Your task to perform on an android device: all mails in gmail Image 0: 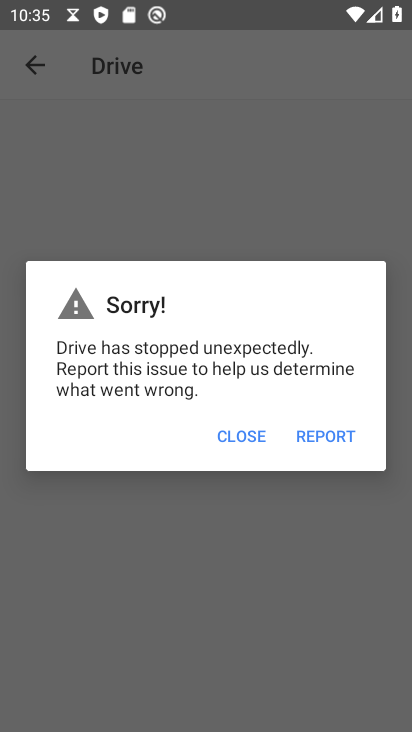
Step 0: press back button
Your task to perform on an android device: all mails in gmail Image 1: 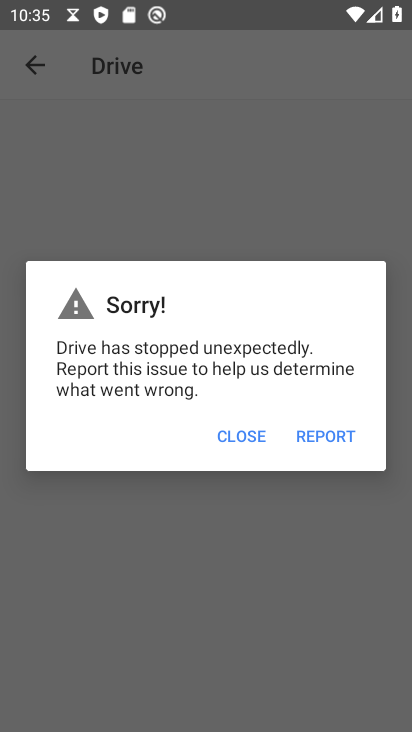
Step 1: press home button
Your task to perform on an android device: all mails in gmail Image 2: 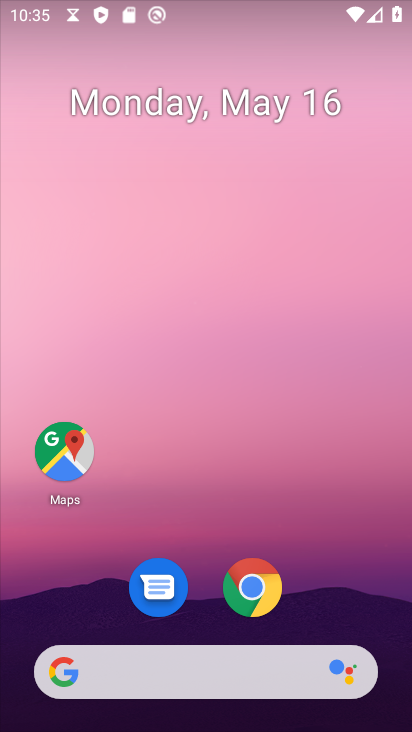
Step 2: drag from (314, 586) to (300, 20)
Your task to perform on an android device: all mails in gmail Image 3: 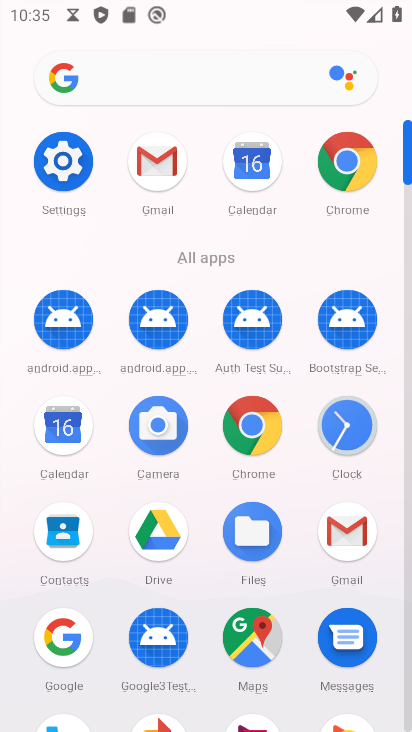
Step 3: drag from (22, 464) to (34, 226)
Your task to perform on an android device: all mails in gmail Image 4: 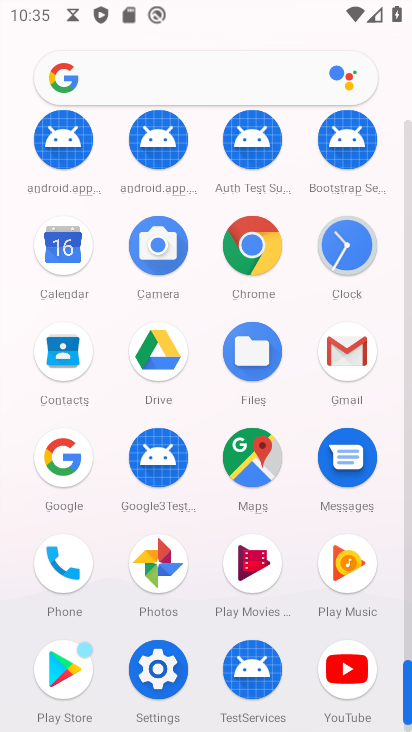
Step 4: click (343, 346)
Your task to perform on an android device: all mails in gmail Image 5: 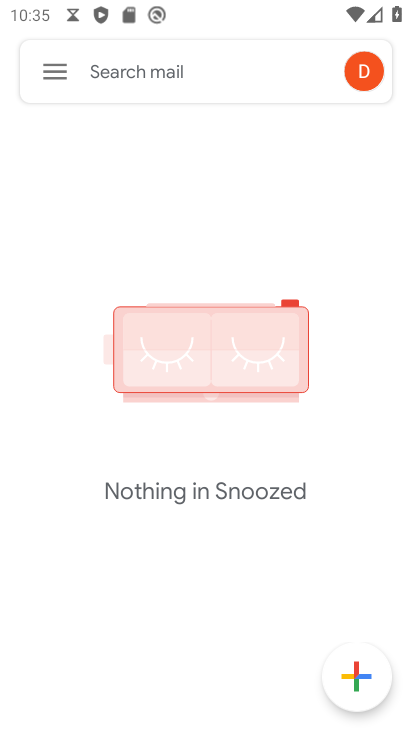
Step 5: click (52, 76)
Your task to perform on an android device: all mails in gmail Image 6: 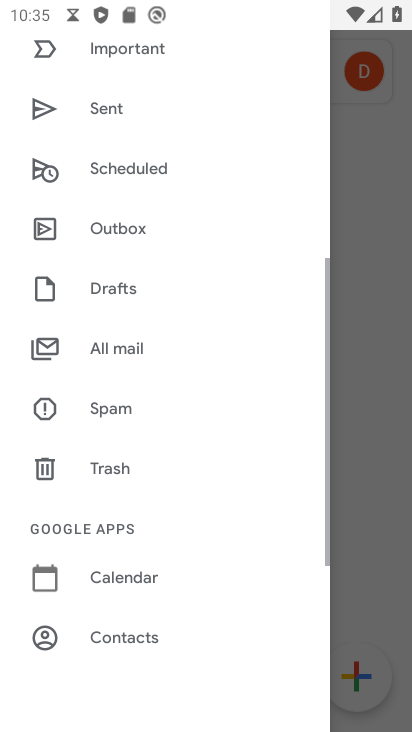
Step 6: click (129, 351)
Your task to perform on an android device: all mails in gmail Image 7: 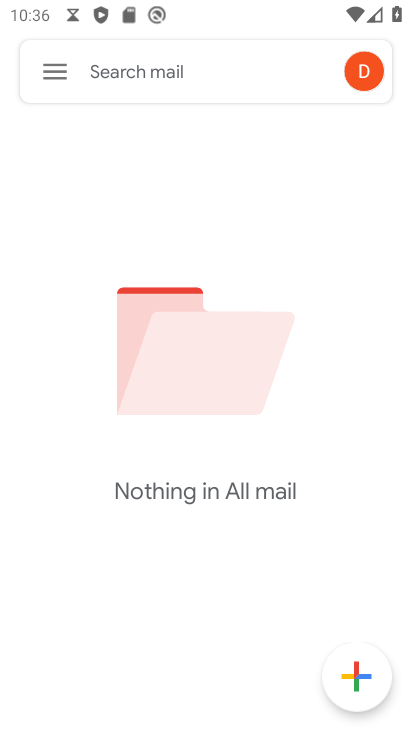
Step 7: click (51, 73)
Your task to perform on an android device: all mails in gmail Image 8: 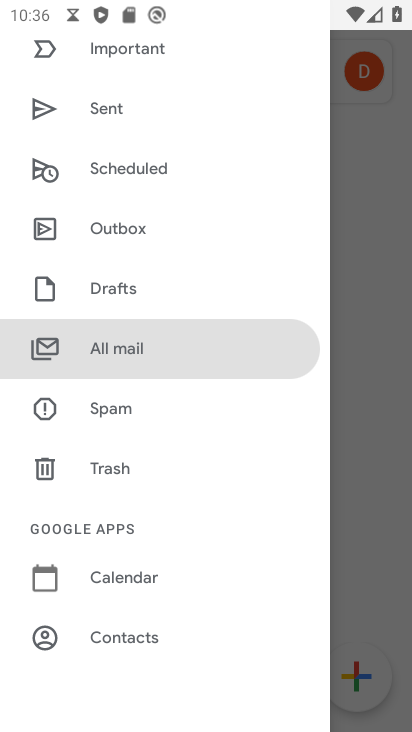
Step 8: click (205, 338)
Your task to perform on an android device: all mails in gmail Image 9: 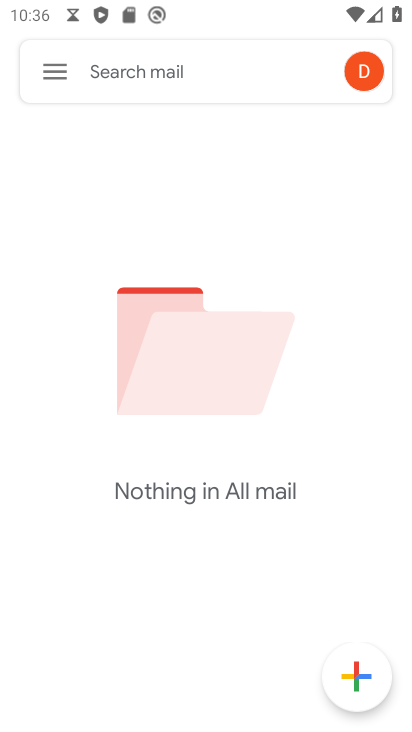
Step 9: click (171, 337)
Your task to perform on an android device: all mails in gmail Image 10: 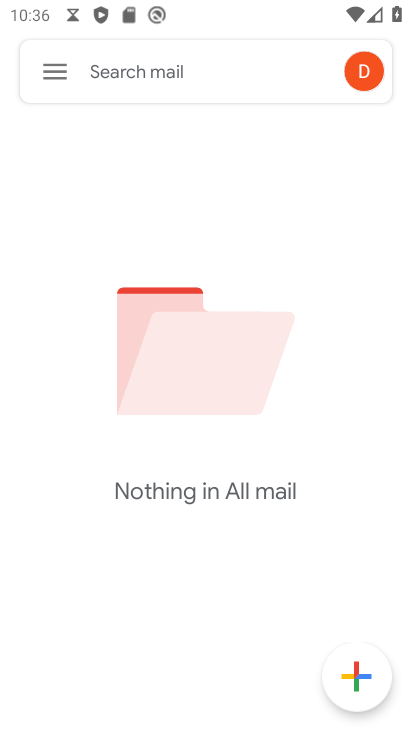
Step 10: click (42, 75)
Your task to perform on an android device: all mails in gmail Image 11: 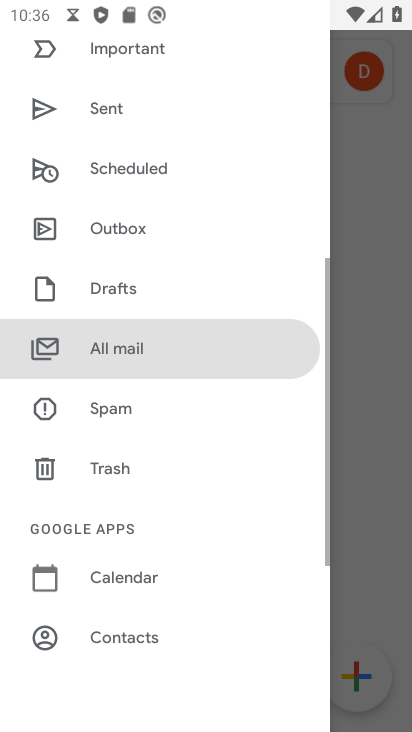
Step 11: click (117, 343)
Your task to perform on an android device: all mails in gmail Image 12: 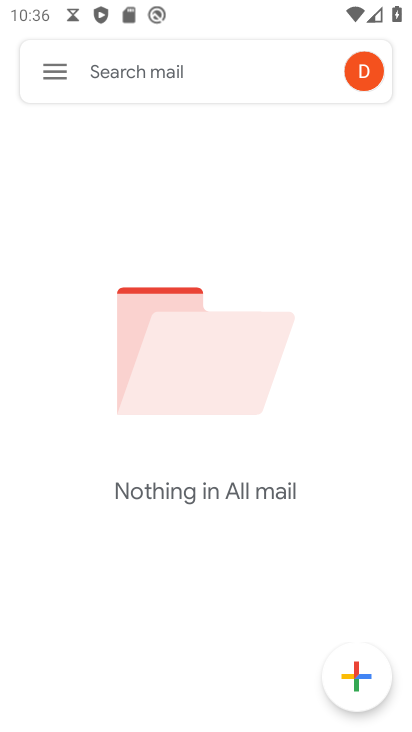
Step 12: task complete